Your task to perform on an android device: toggle priority inbox in the gmail app Image 0: 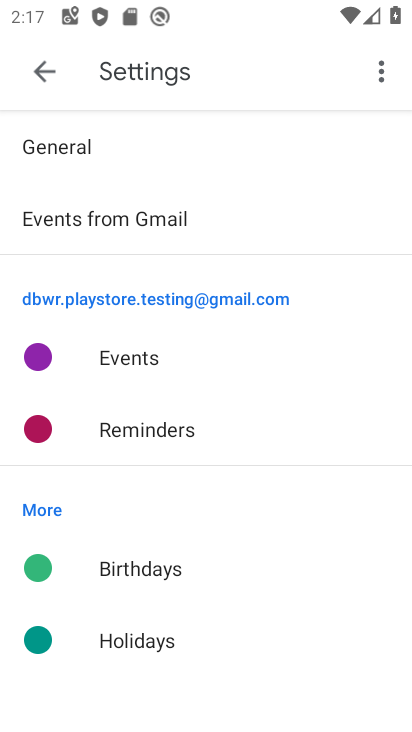
Step 0: press home button
Your task to perform on an android device: toggle priority inbox in the gmail app Image 1: 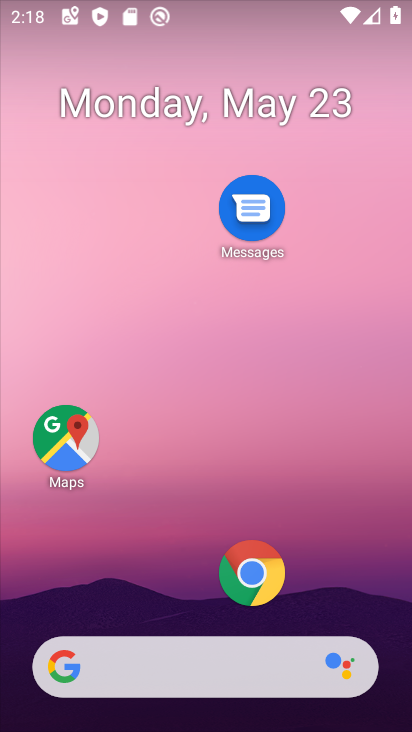
Step 1: drag from (205, 593) to (217, 4)
Your task to perform on an android device: toggle priority inbox in the gmail app Image 2: 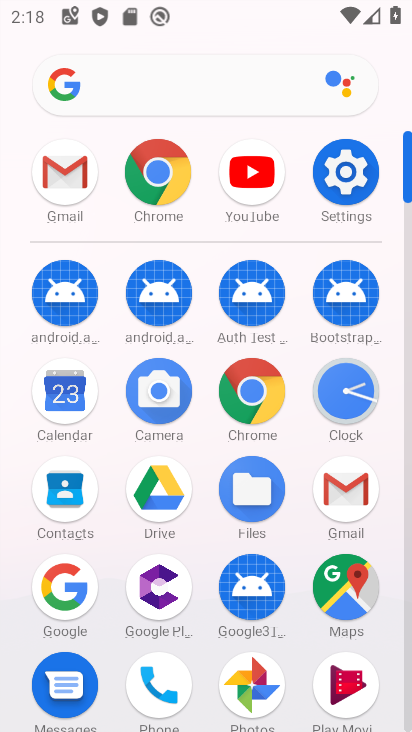
Step 2: click (372, 489)
Your task to perform on an android device: toggle priority inbox in the gmail app Image 3: 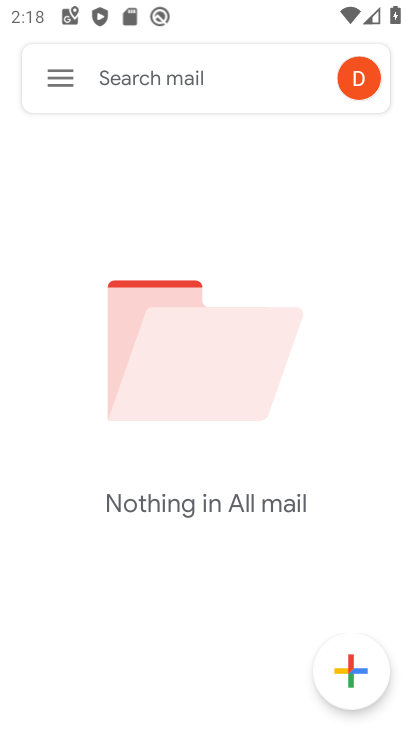
Step 3: click (49, 63)
Your task to perform on an android device: toggle priority inbox in the gmail app Image 4: 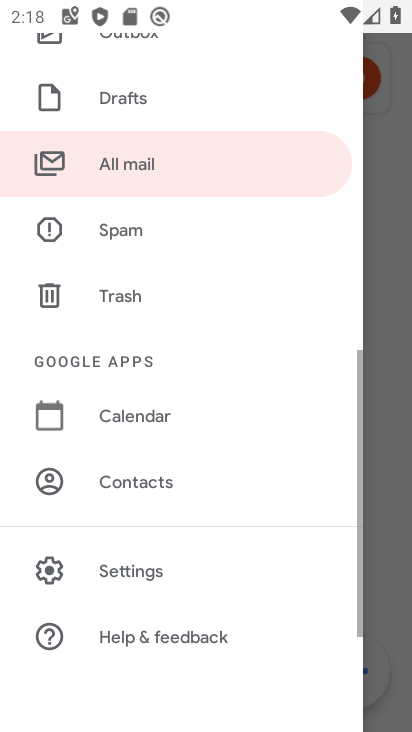
Step 4: click (189, 571)
Your task to perform on an android device: toggle priority inbox in the gmail app Image 5: 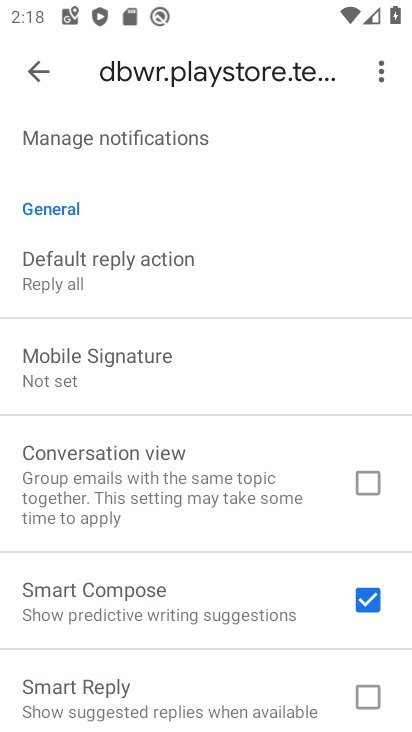
Step 5: drag from (174, 199) to (209, 687)
Your task to perform on an android device: toggle priority inbox in the gmail app Image 6: 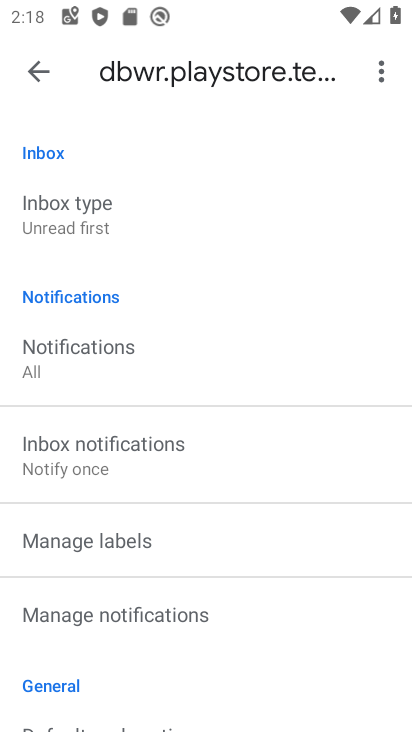
Step 6: drag from (127, 303) to (164, 706)
Your task to perform on an android device: toggle priority inbox in the gmail app Image 7: 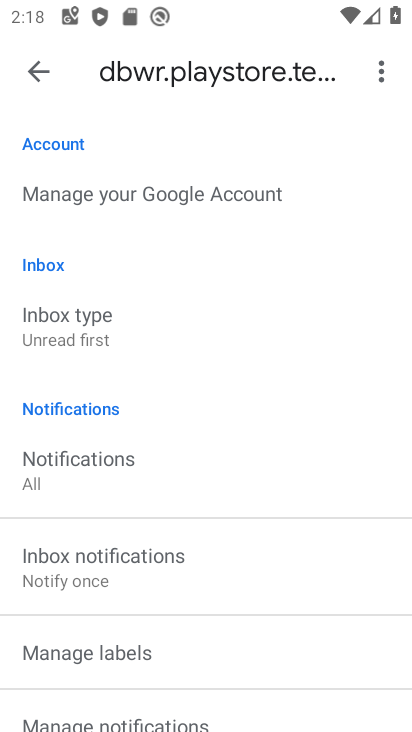
Step 7: click (110, 333)
Your task to perform on an android device: toggle priority inbox in the gmail app Image 8: 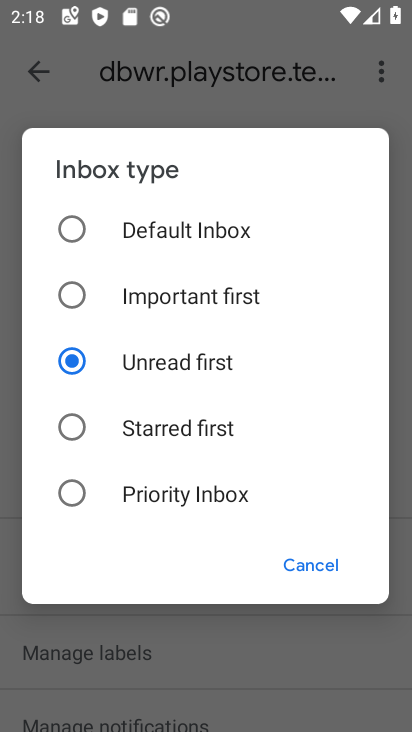
Step 8: click (73, 224)
Your task to perform on an android device: toggle priority inbox in the gmail app Image 9: 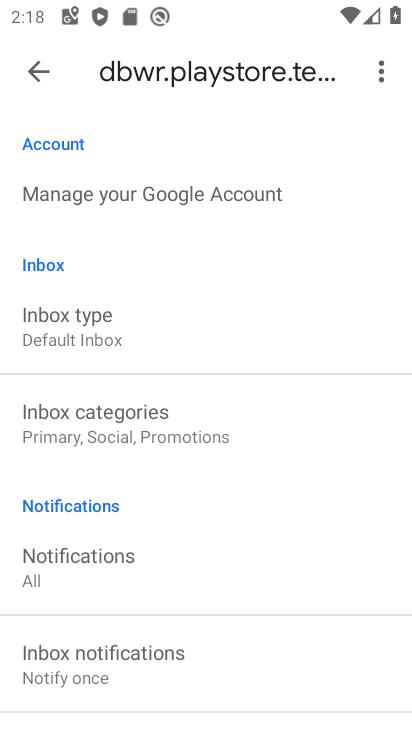
Step 9: task complete